Your task to perform on an android device: Show me productivity apps on the Play Store Image 0: 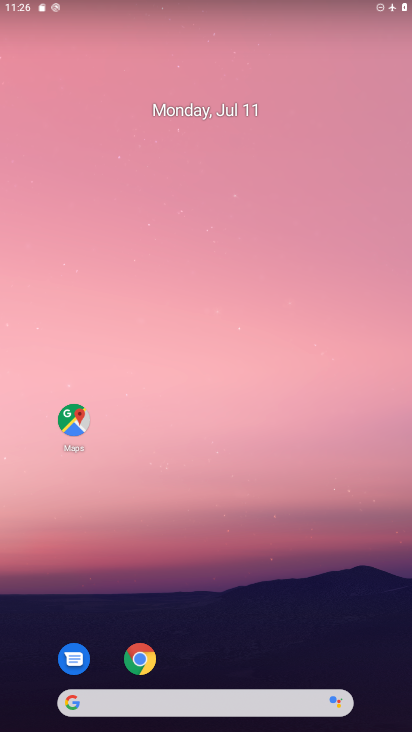
Step 0: drag from (373, 639) to (311, 141)
Your task to perform on an android device: Show me productivity apps on the Play Store Image 1: 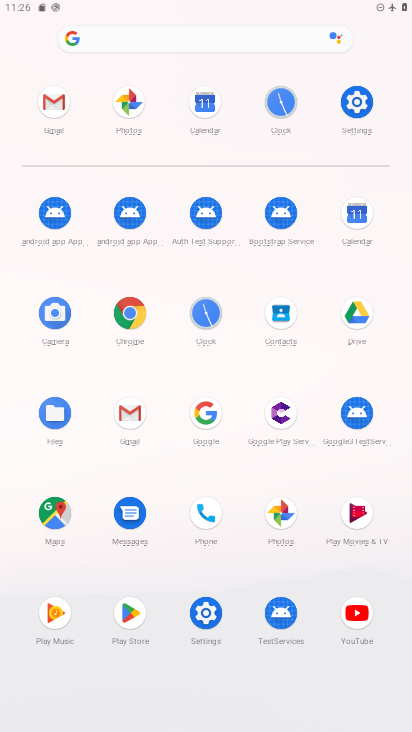
Step 1: click (131, 609)
Your task to perform on an android device: Show me productivity apps on the Play Store Image 2: 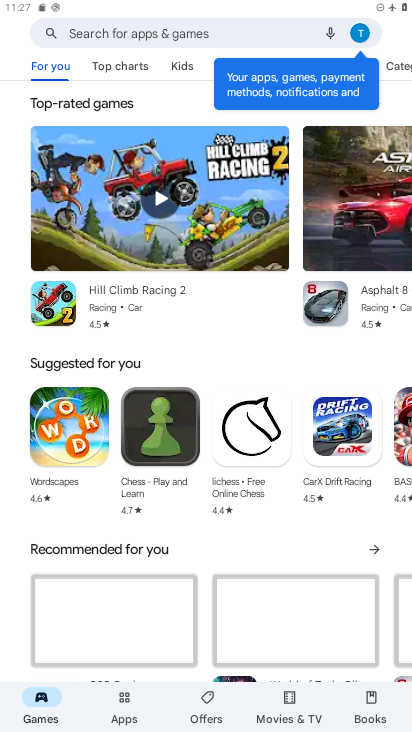
Step 2: click (180, 92)
Your task to perform on an android device: Show me productivity apps on the Play Store Image 3: 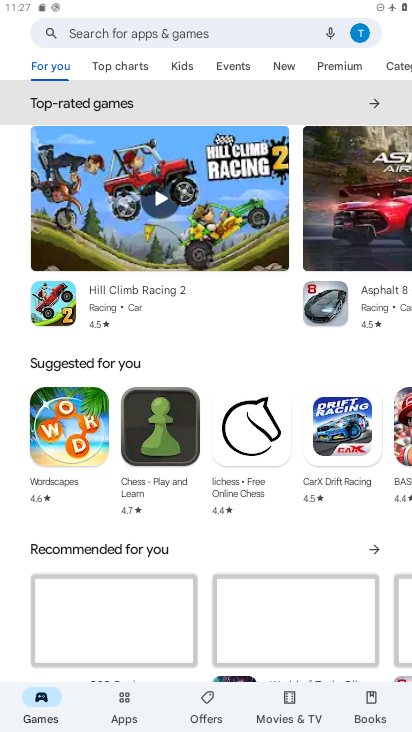
Step 3: click (126, 704)
Your task to perform on an android device: Show me productivity apps on the Play Store Image 4: 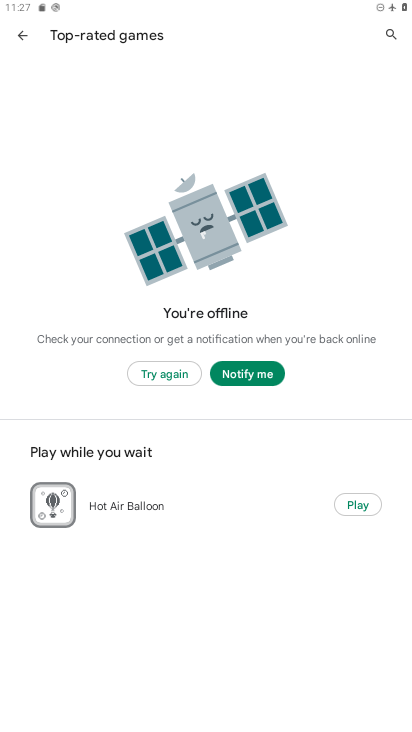
Step 4: task complete